Your task to perform on an android device: Is it going to rain this weekend? Image 0: 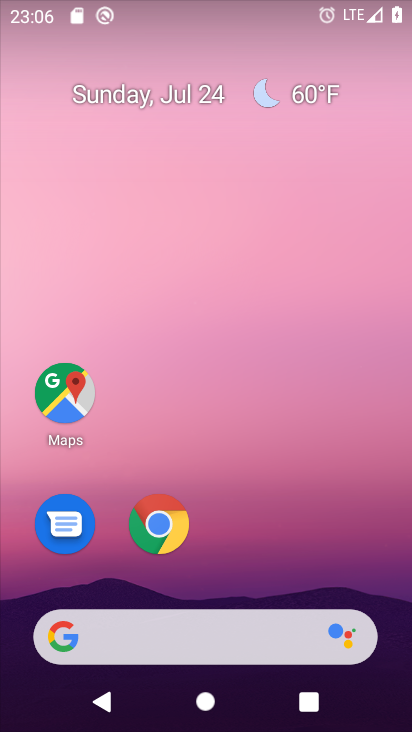
Step 0: drag from (261, 554) to (294, 15)
Your task to perform on an android device: Is it going to rain this weekend? Image 1: 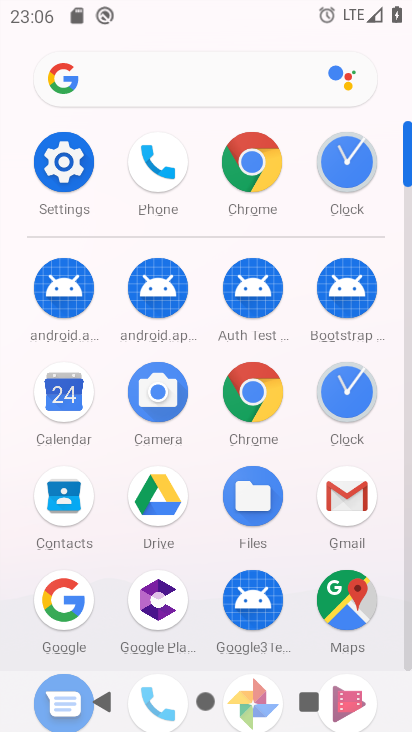
Step 1: click (232, 87)
Your task to perform on an android device: Is it going to rain this weekend? Image 2: 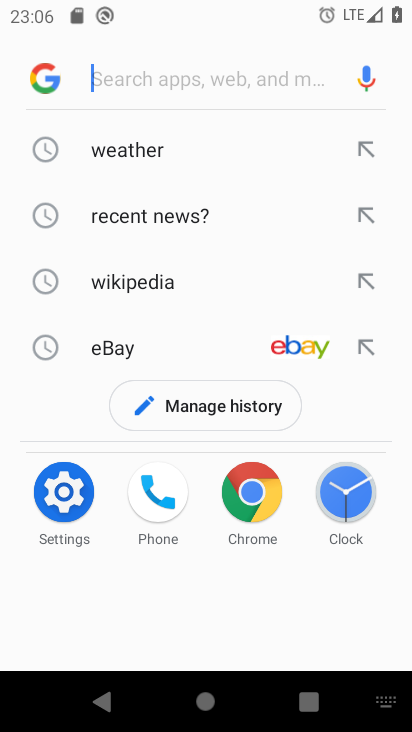
Step 2: click (150, 149)
Your task to perform on an android device: Is it going to rain this weekend? Image 3: 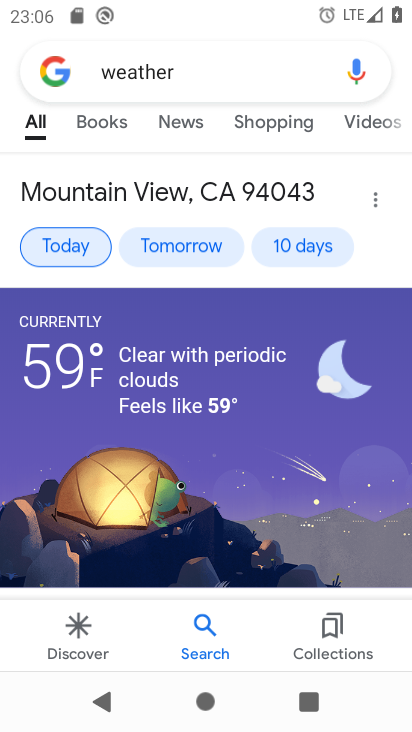
Step 3: click (294, 239)
Your task to perform on an android device: Is it going to rain this weekend? Image 4: 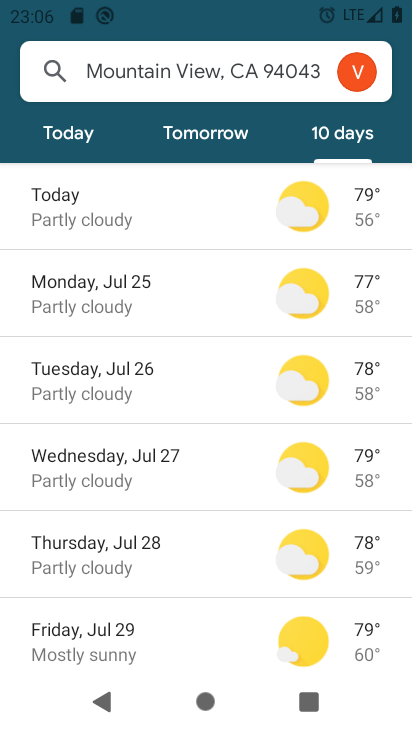
Step 4: task complete